Your task to perform on an android device: toggle priority inbox in the gmail app Image 0: 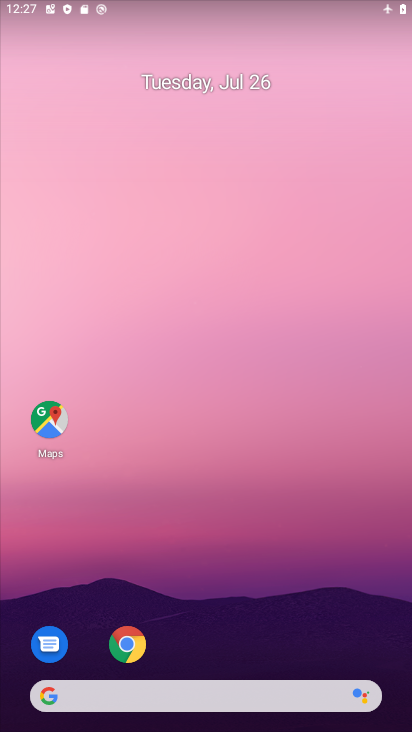
Step 0: drag from (157, 650) to (208, 174)
Your task to perform on an android device: toggle priority inbox in the gmail app Image 1: 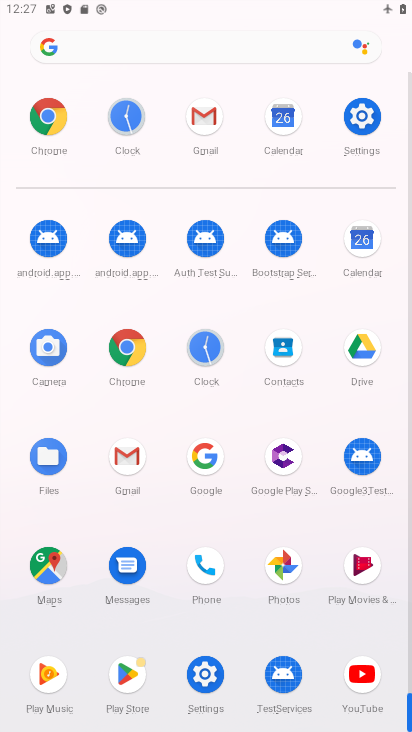
Step 1: drag from (254, 501) to (261, 258)
Your task to perform on an android device: toggle priority inbox in the gmail app Image 2: 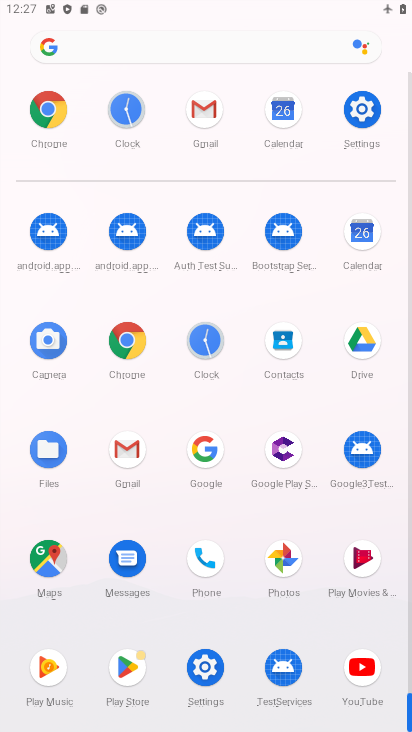
Step 2: click (126, 466)
Your task to perform on an android device: toggle priority inbox in the gmail app Image 3: 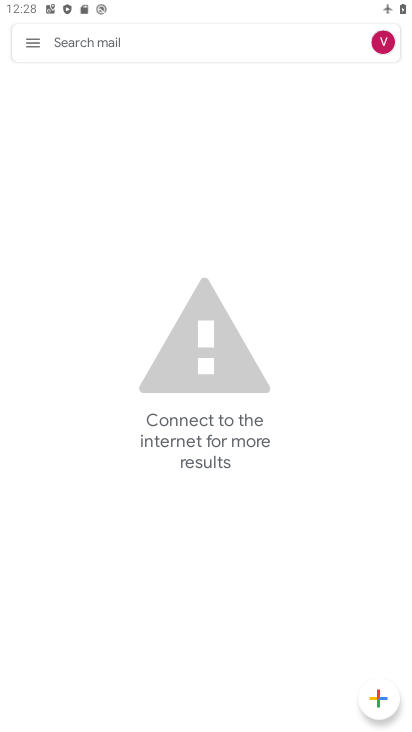
Step 3: click (33, 50)
Your task to perform on an android device: toggle priority inbox in the gmail app Image 4: 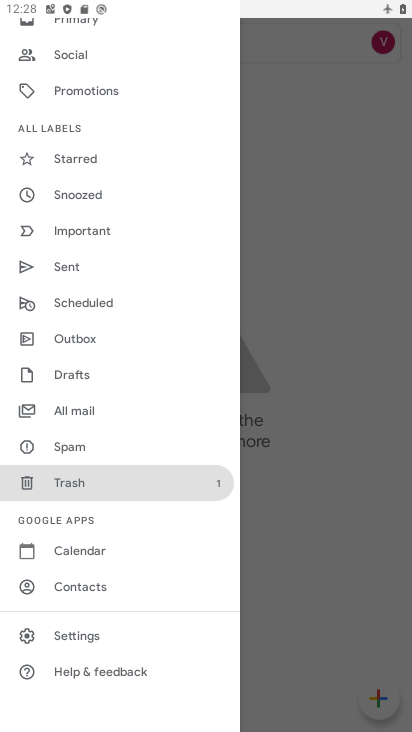
Step 4: click (98, 636)
Your task to perform on an android device: toggle priority inbox in the gmail app Image 5: 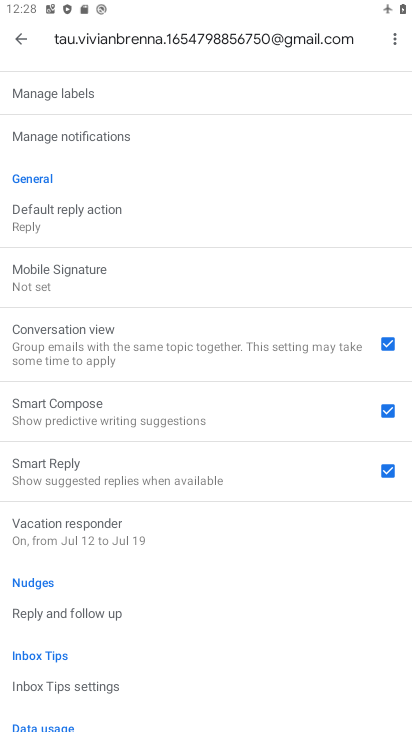
Step 5: drag from (77, 207) to (102, 549)
Your task to perform on an android device: toggle priority inbox in the gmail app Image 6: 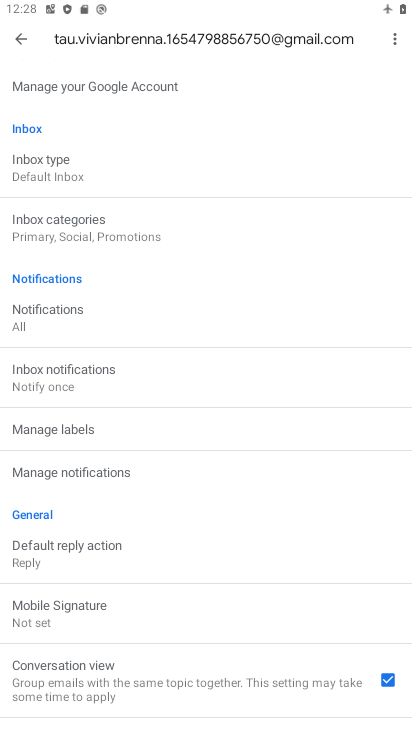
Step 6: click (76, 228)
Your task to perform on an android device: toggle priority inbox in the gmail app Image 7: 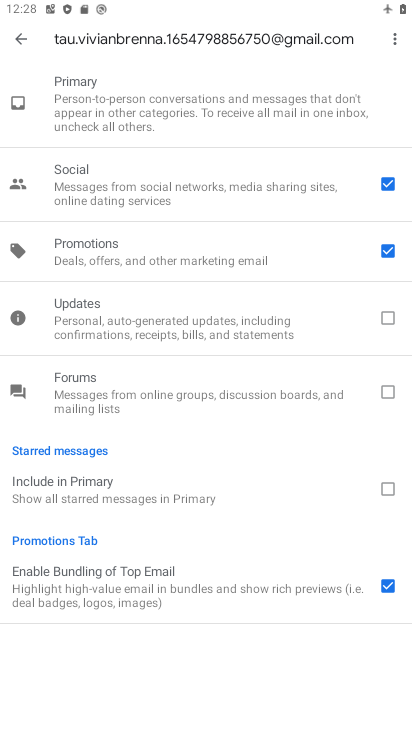
Step 7: click (22, 38)
Your task to perform on an android device: toggle priority inbox in the gmail app Image 8: 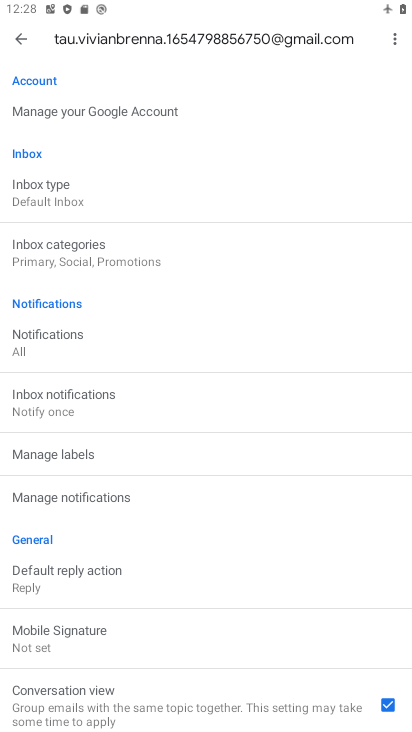
Step 8: click (55, 195)
Your task to perform on an android device: toggle priority inbox in the gmail app Image 9: 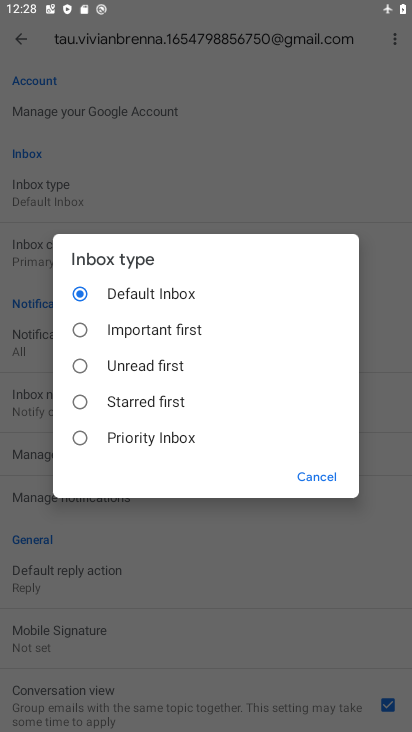
Step 9: click (87, 430)
Your task to perform on an android device: toggle priority inbox in the gmail app Image 10: 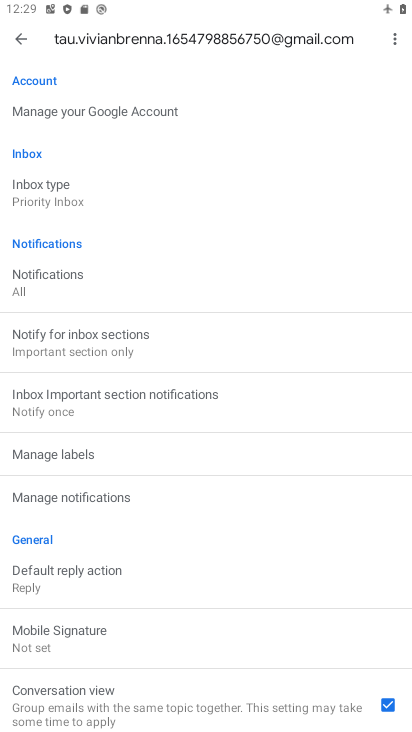
Step 10: task complete